Your task to perform on an android device: What's the weather going to be this weekend? Image 0: 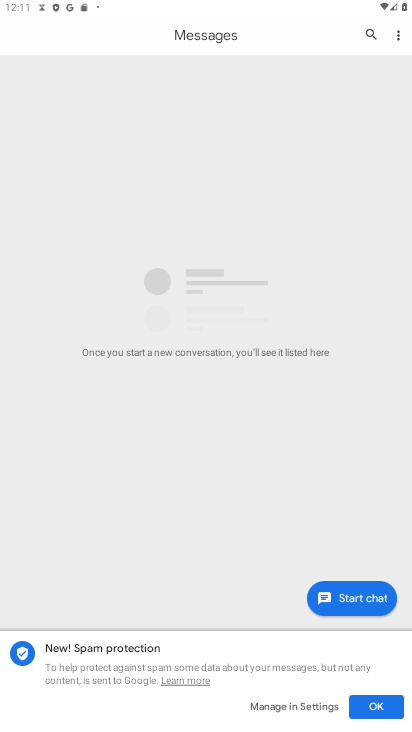
Step 0: press home button
Your task to perform on an android device: What's the weather going to be this weekend? Image 1: 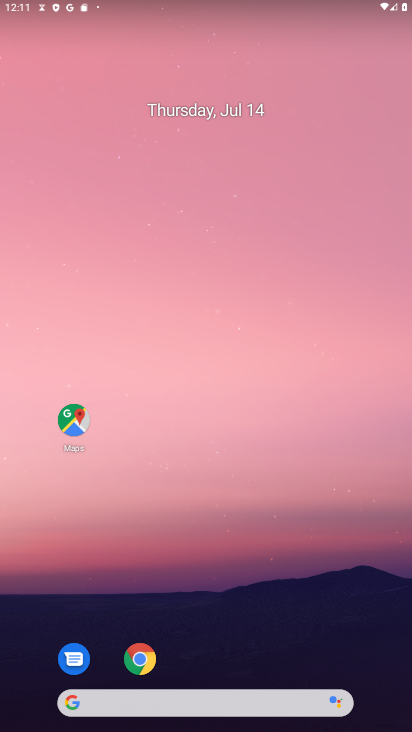
Step 1: drag from (32, 709) to (391, 2)
Your task to perform on an android device: What's the weather going to be this weekend? Image 2: 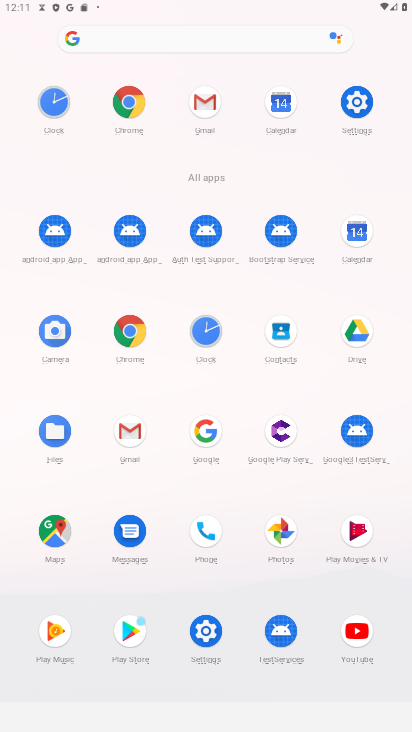
Step 2: click (135, 435)
Your task to perform on an android device: What's the weather going to be this weekend? Image 3: 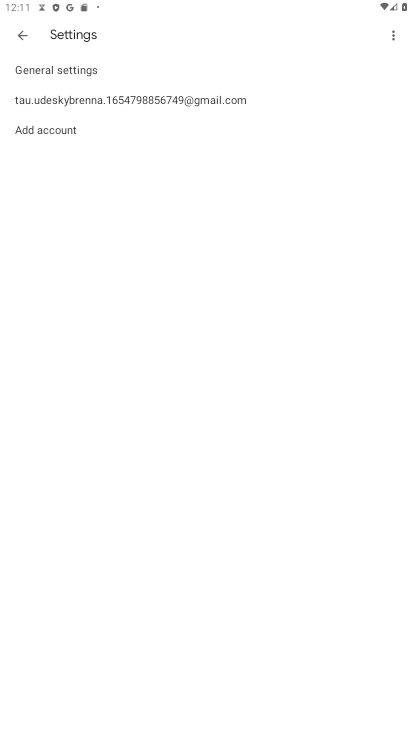
Step 3: press home button
Your task to perform on an android device: What's the weather going to be this weekend? Image 4: 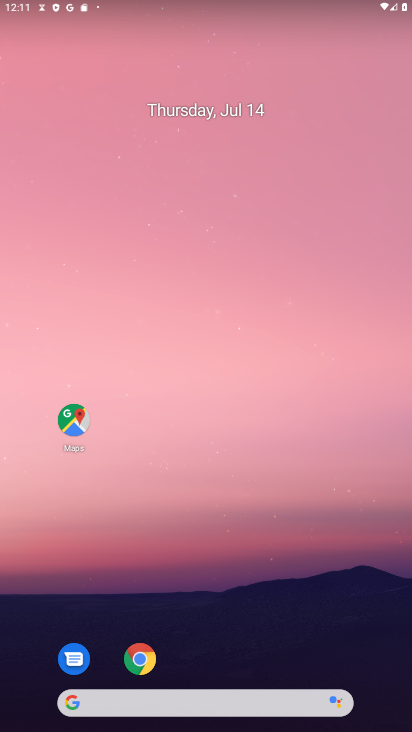
Step 4: click (114, 697)
Your task to perform on an android device: What's the weather going to be this weekend? Image 5: 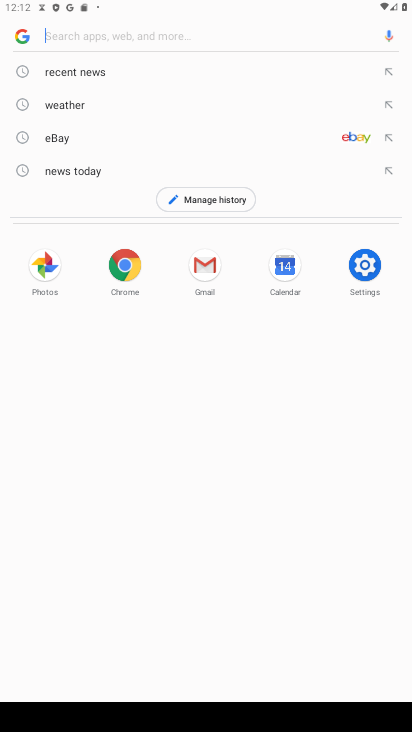
Step 5: type "What's the weather going to be this weekend?"
Your task to perform on an android device: What's the weather going to be this weekend? Image 6: 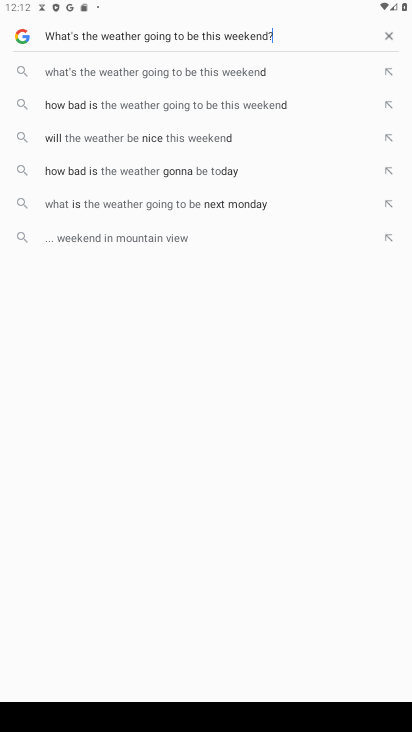
Step 6: type ""
Your task to perform on an android device: What's the weather going to be this weekend? Image 7: 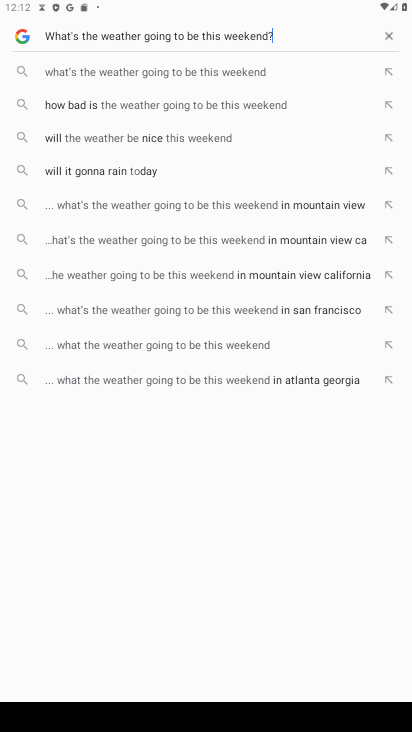
Step 7: click (140, 76)
Your task to perform on an android device: What's the weather going to be this weekend? Image 8: 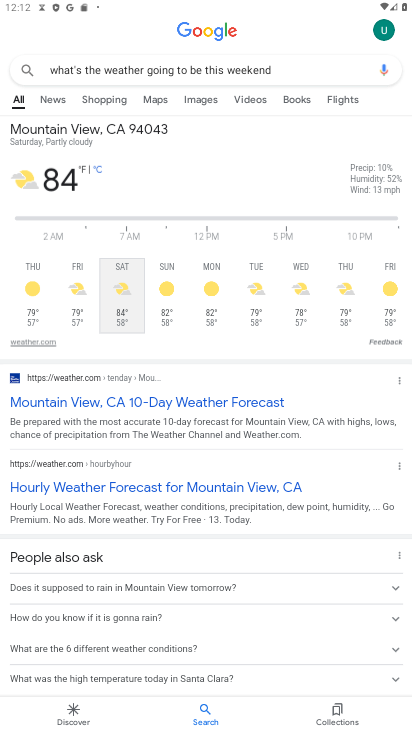
Step 8: task complete